Your task to perform on an android device: turn off airplane mode Image 0: 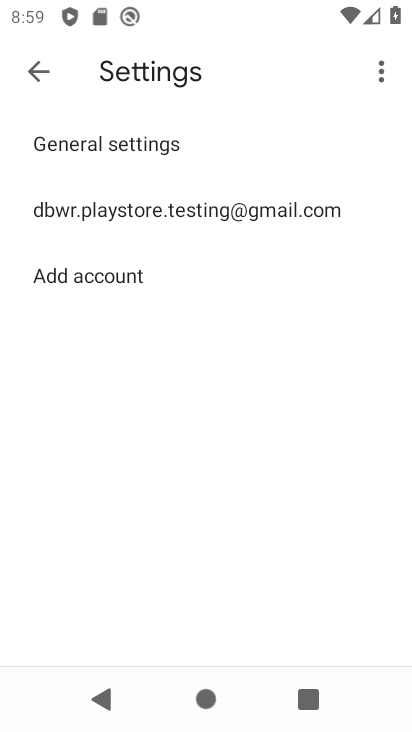
Step 0: press home button
Your task to perform on an android device: turn off airplane mode Image 1: 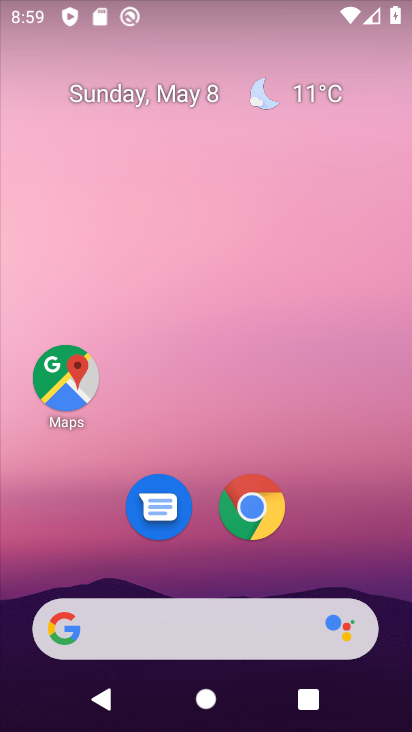
Step 1: drag from (230, 596) to (268, 364)
Your task to perform on an android device: turn off airplane mode Image 2: 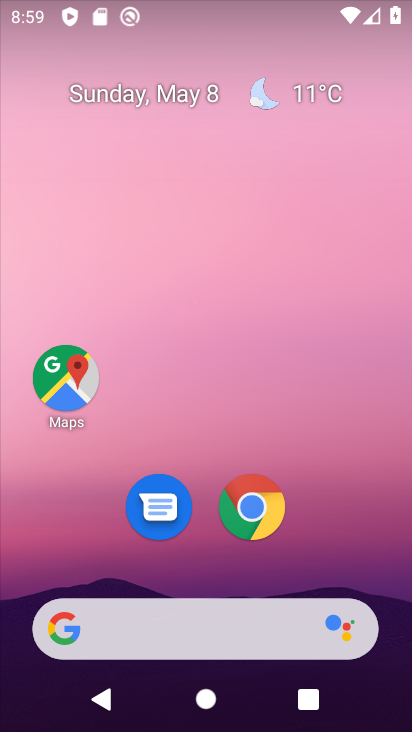
Step 2: drag from (200, 584) to (228, 370)
Your task to perform on an android device: turn off airplane mode Image 3: 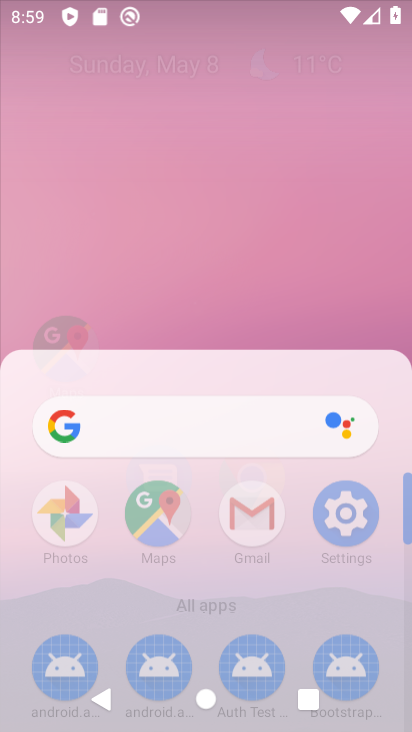
Step 3: drag from (228, 370) to (283, 47)
Your task to perform on an android device: turn off airplane mode Image 4: 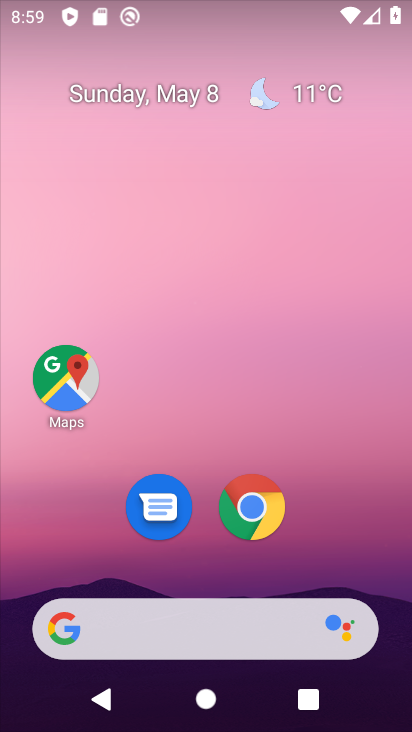
Step 4: drag from (215, 590) to (347, 77)
Your task to perform on an android device: turn off airplane mode Image 5: 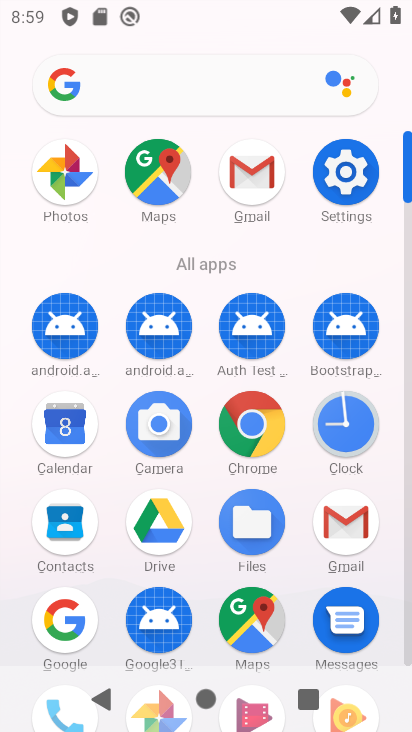
Step 5: click (345, 168)
Your task to perform on an android device: turn off airplane mode Image 6: 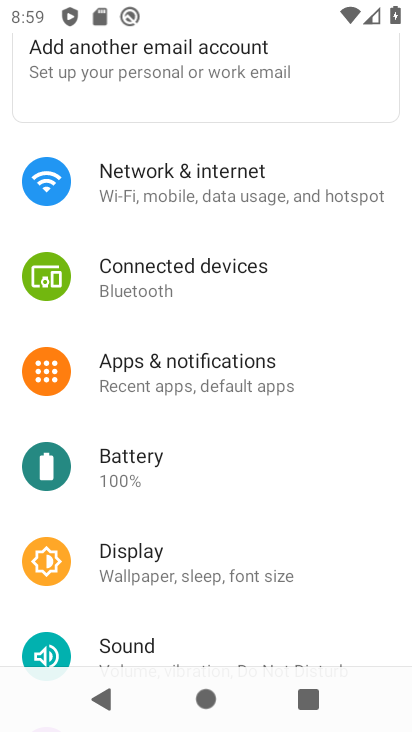
Step 6: click (268, 188)
Your task to perform on an android device: turn off airplane mode Image 7: 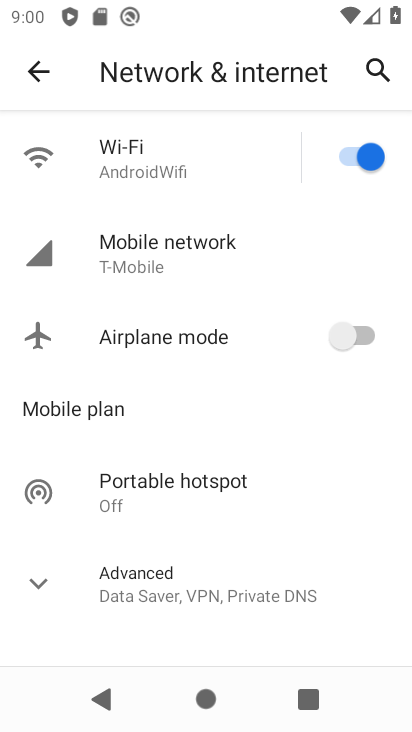
Step 7: task complete